Your task to perform on an android device: Open internet settings Image 0: 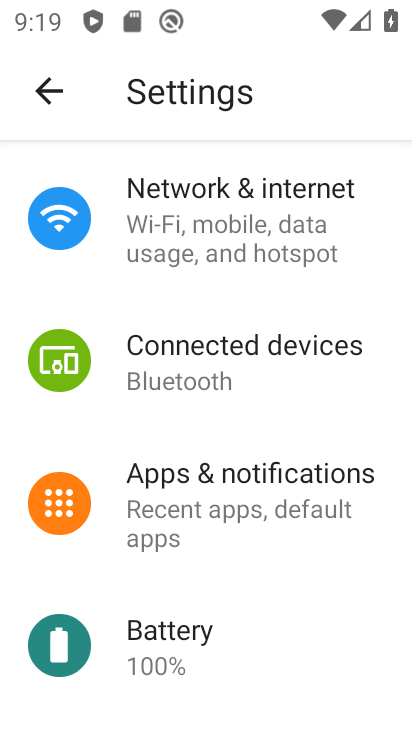
Step 0: click (271, 218)
Your task to perform on an android device: Open internet settings Image 1: 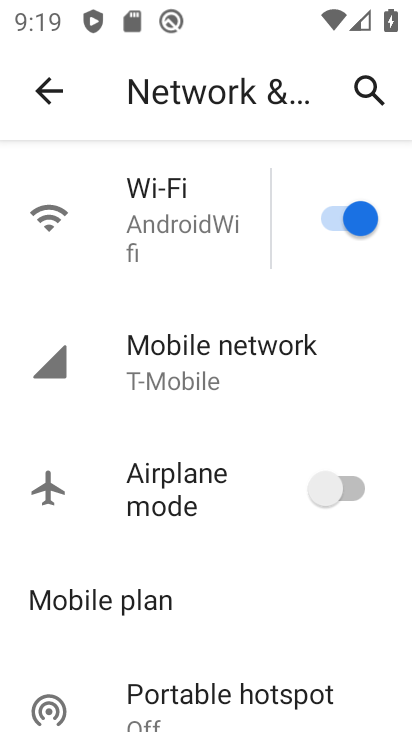
Step 1: click (235, 350)
Your task to perform on an android device: Open internet settings Image 2: 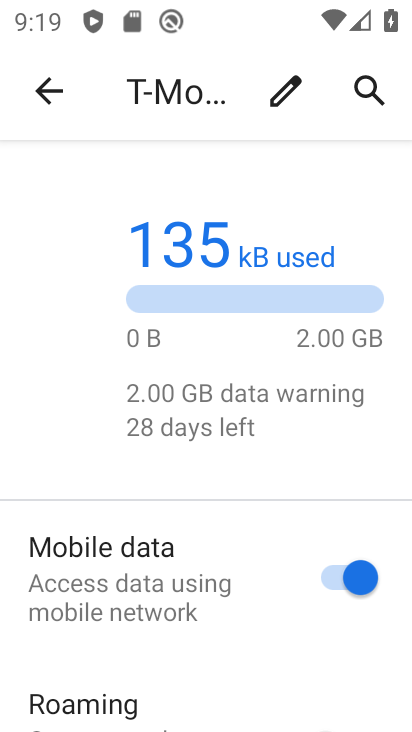
Step 2: task complete